Your task to perform on an android device: see tabs open on other devices in the chrome app Image 0: 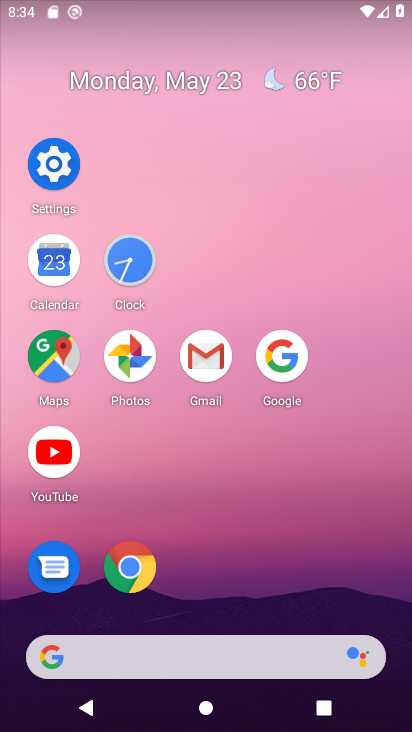
Step 0: click (136, 578)
Your task to perform on an android device: see tabs open on other devices in the chrome app Image 1: 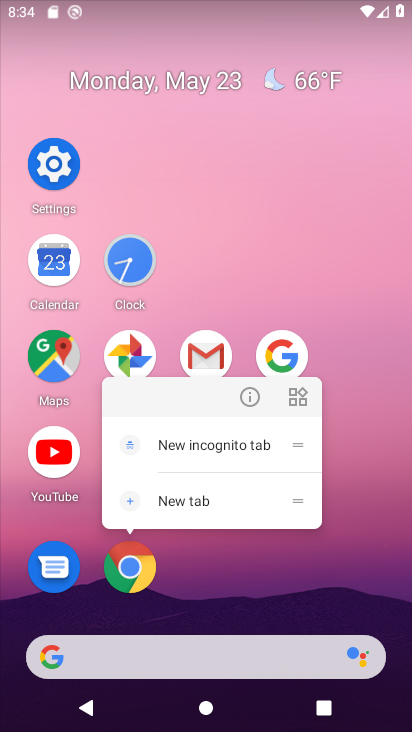
Step 1: click (125, 547)
Your task to perform on an android device: see tabs open on other devices in the chrome app Image 2: 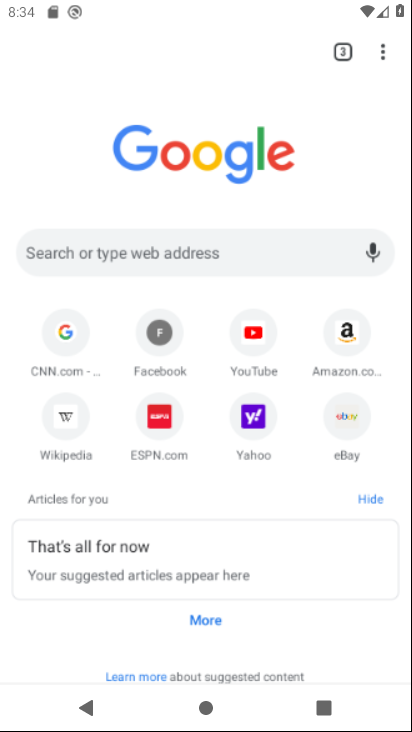
Step 2: click (387, 49)
Your task to perform on an android device: see tabs open on other devices in the chrome app Image 3: 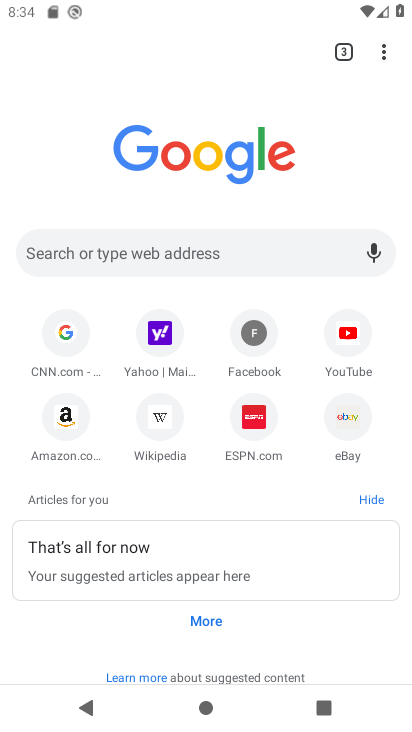
Step 3: click (384, 55)
Your task to perform on an android device: see tabs open on other devices in the chrome app Image 4: 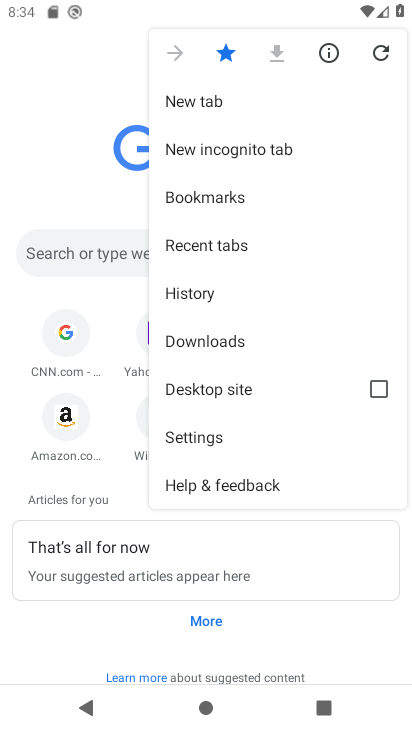
Step 4: click (238, 247)
Your task to perform on an android device: see tabs open on other devices in the chrome app Image 5: 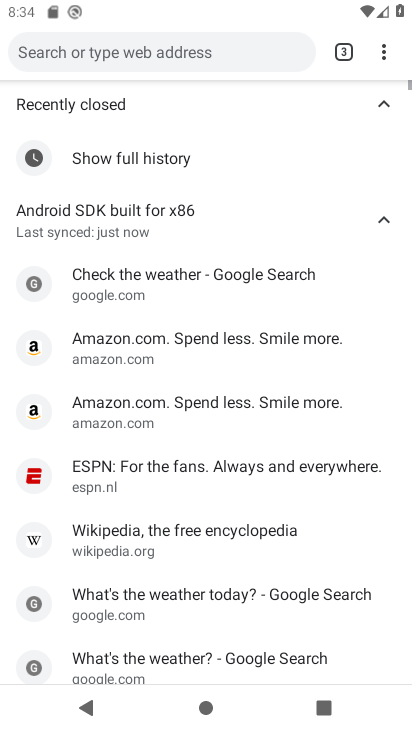
Step 5: click (161, 159)
Your task to perform on an android device: see tabs open on other devices in the chrome app Image 6: 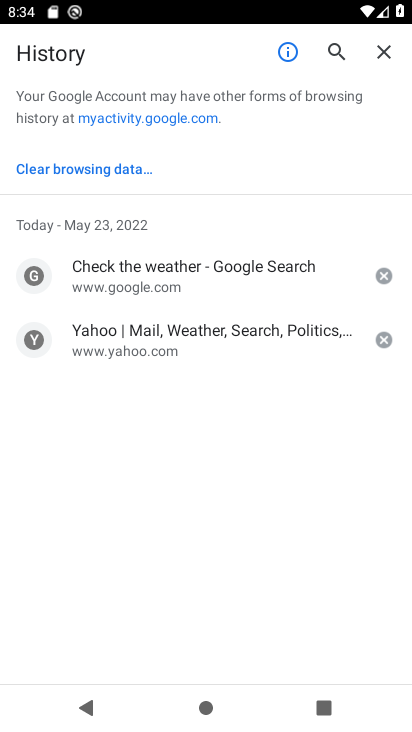
Step 6: task complete